Your task to perform on an android device: Search for flights from Tokyo to NYC Image 0: 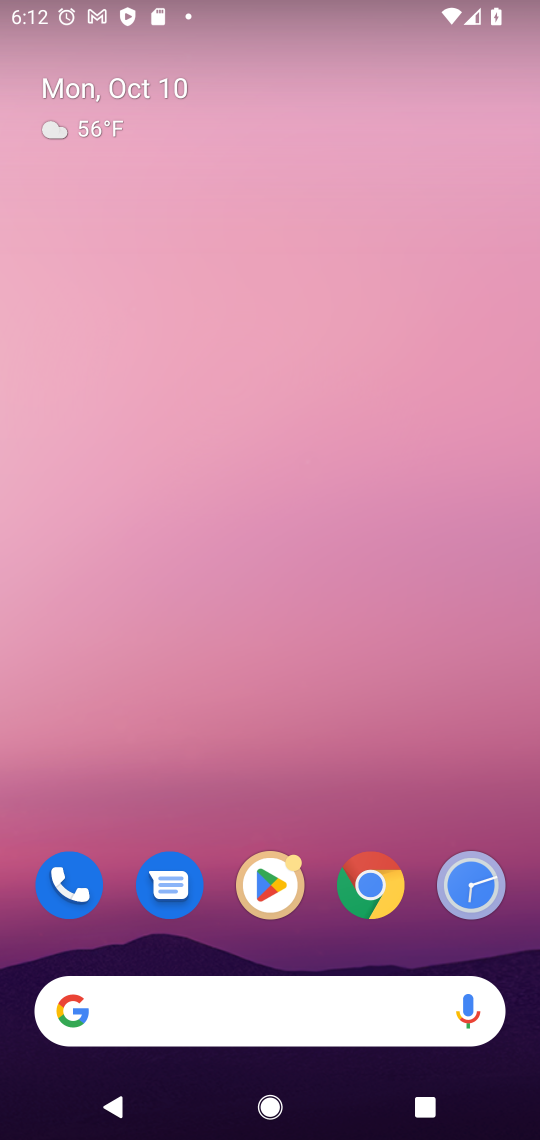
Step 0: click (318, 1019)
Your task to perform on an android device: Search for flights from Tokyo to NYC Image 1: 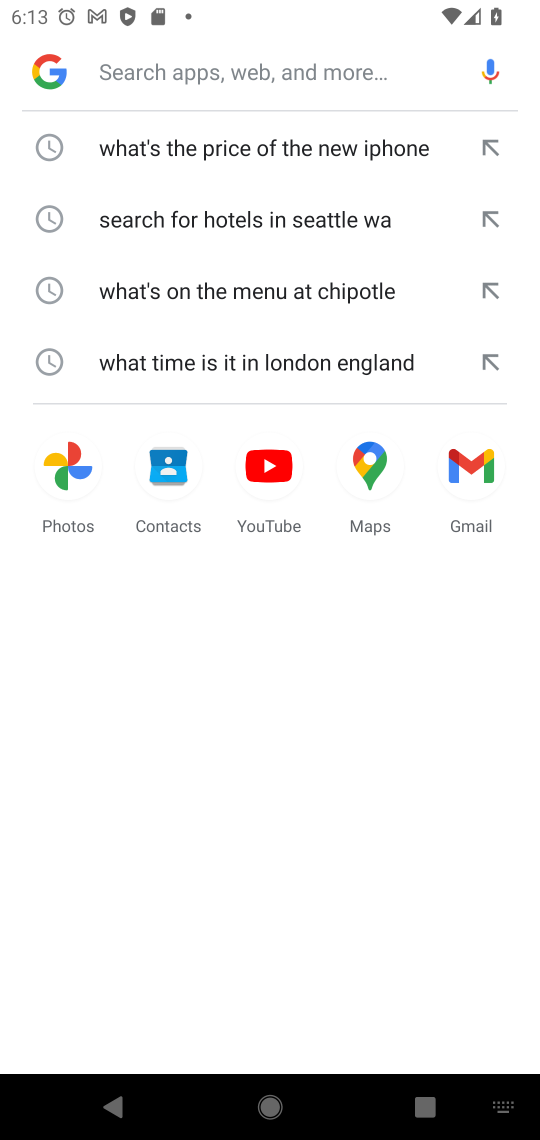
Step 1: type "flights from Tokyo to NYC"
Your task to perform on an android device: Search for flights from Tokyo to NYC Image 2: 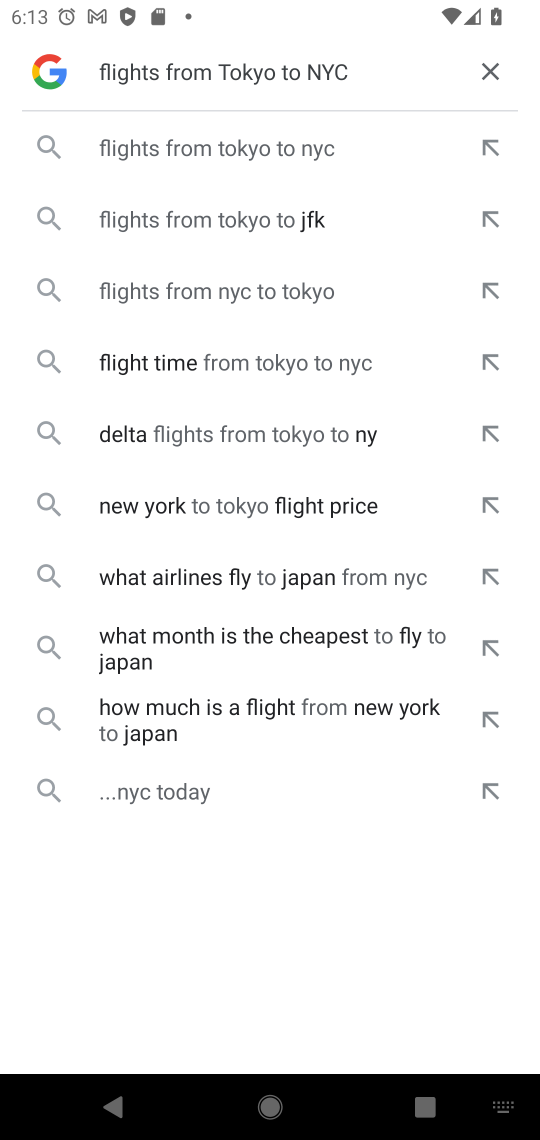
Step 2: click (211, 152)
Your task to perform on an android device: Search for flights from Tokyo to NYC Image 3: 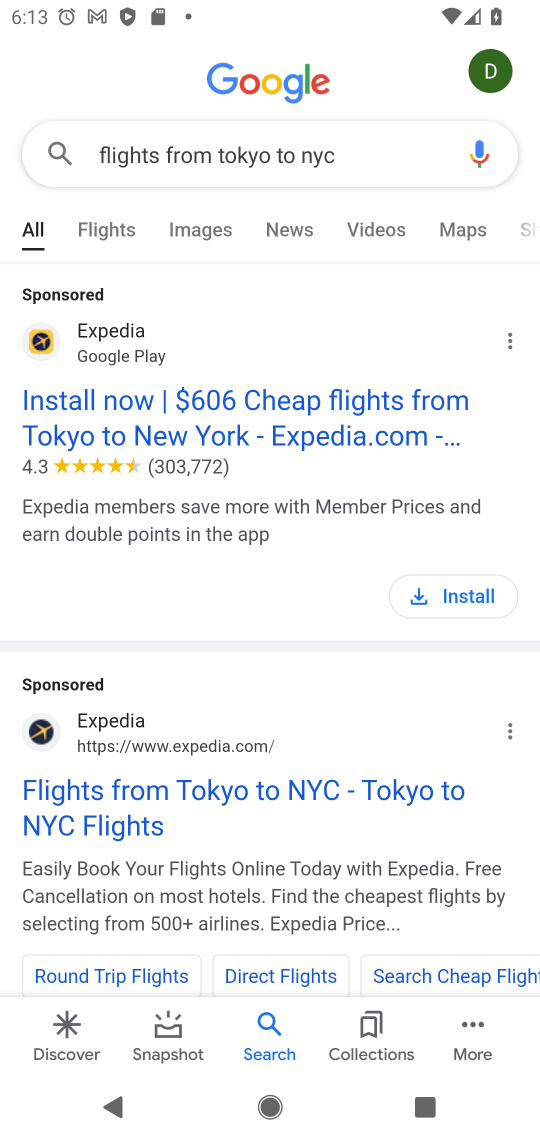
Step 3: click (255, 792)
Your task to perform on an android device: Search for flights from Tokyo to NYC Image 4: 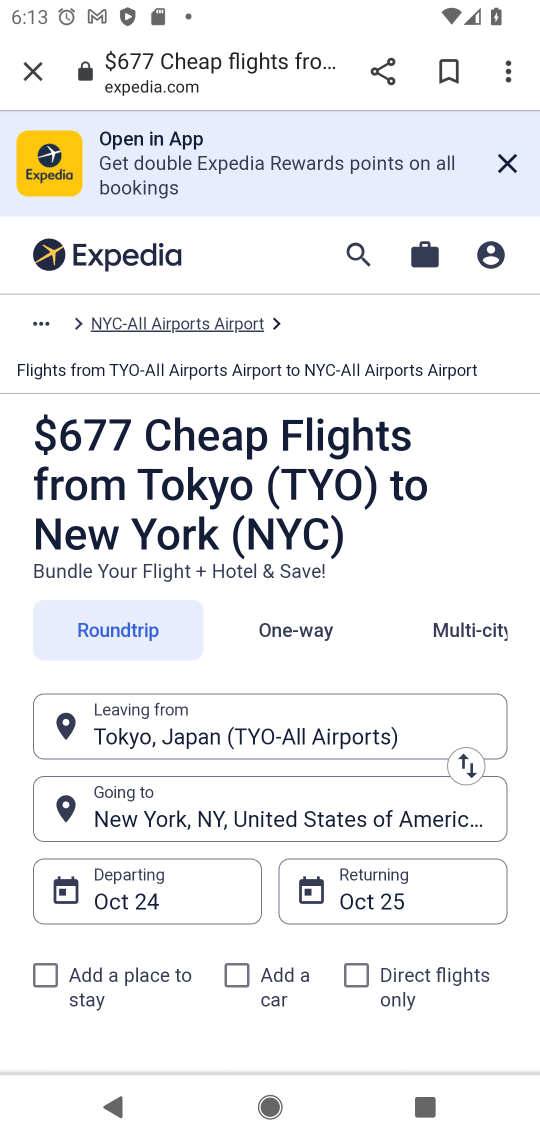
Step 4: drag from (455, 517) to (449, 392)
Your task to perform on an android device: Search for flights from Tokyo to NYC Image 5: 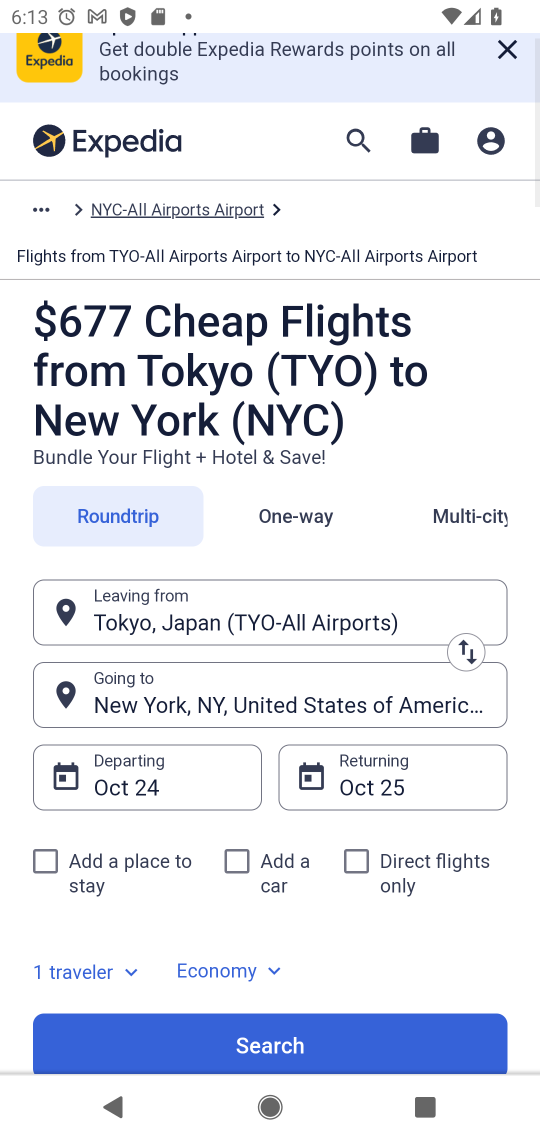
Step 5: click (268, 1044)
Your task to perform on an android device: Search for flights from Tokyo to NYC Image 6: 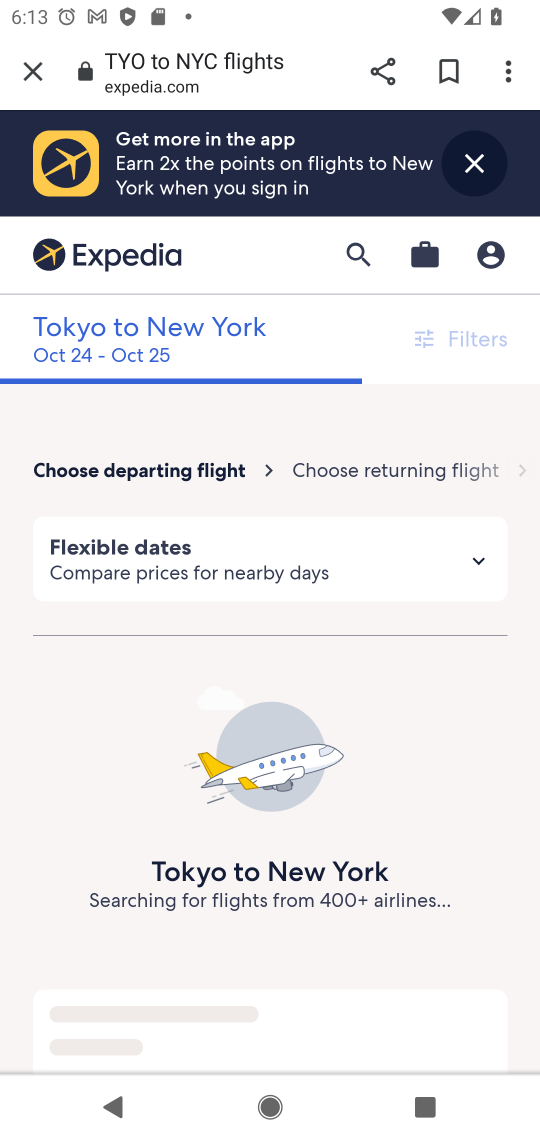
Step 6: task complete